Your task to perform on an android device: Open my contact list Image 0: 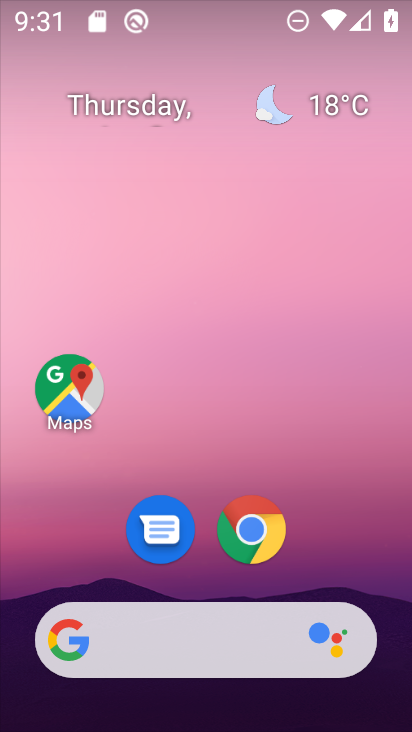
Step 0: drag from (398, 694) to (318, 208)
Your task to perform on an android device: Open my contact list Image 1: 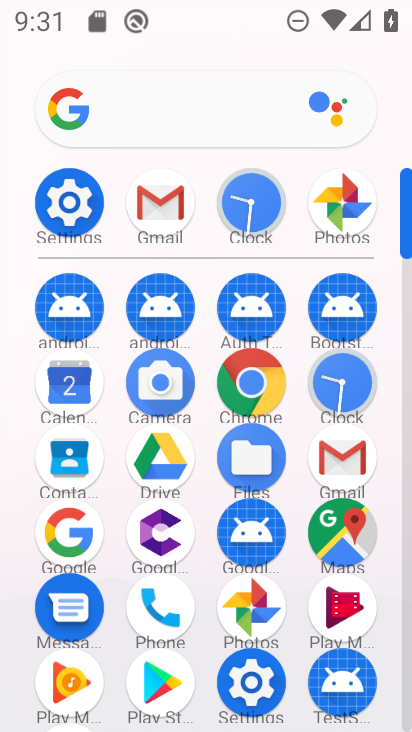
Step 1: click (80, 447)
Your task to perform on an android device: Open my contact list Image 2: 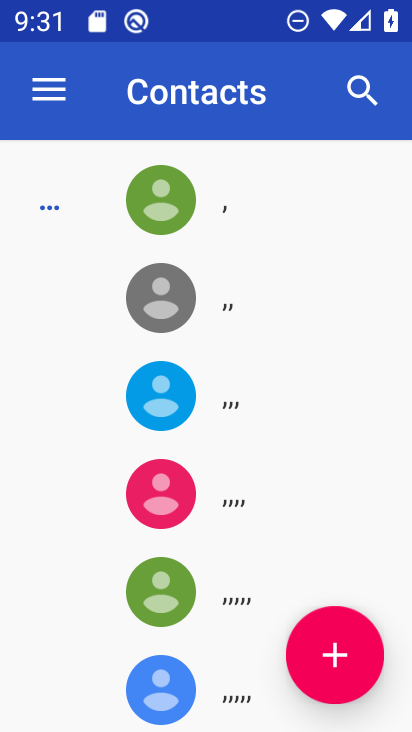
Step 2: task complete